Your task to perform on an android device: View the shopping cart on ebay. Search for razer deathadder on ebay, select the first entry, and add it to the cart. Image 0: 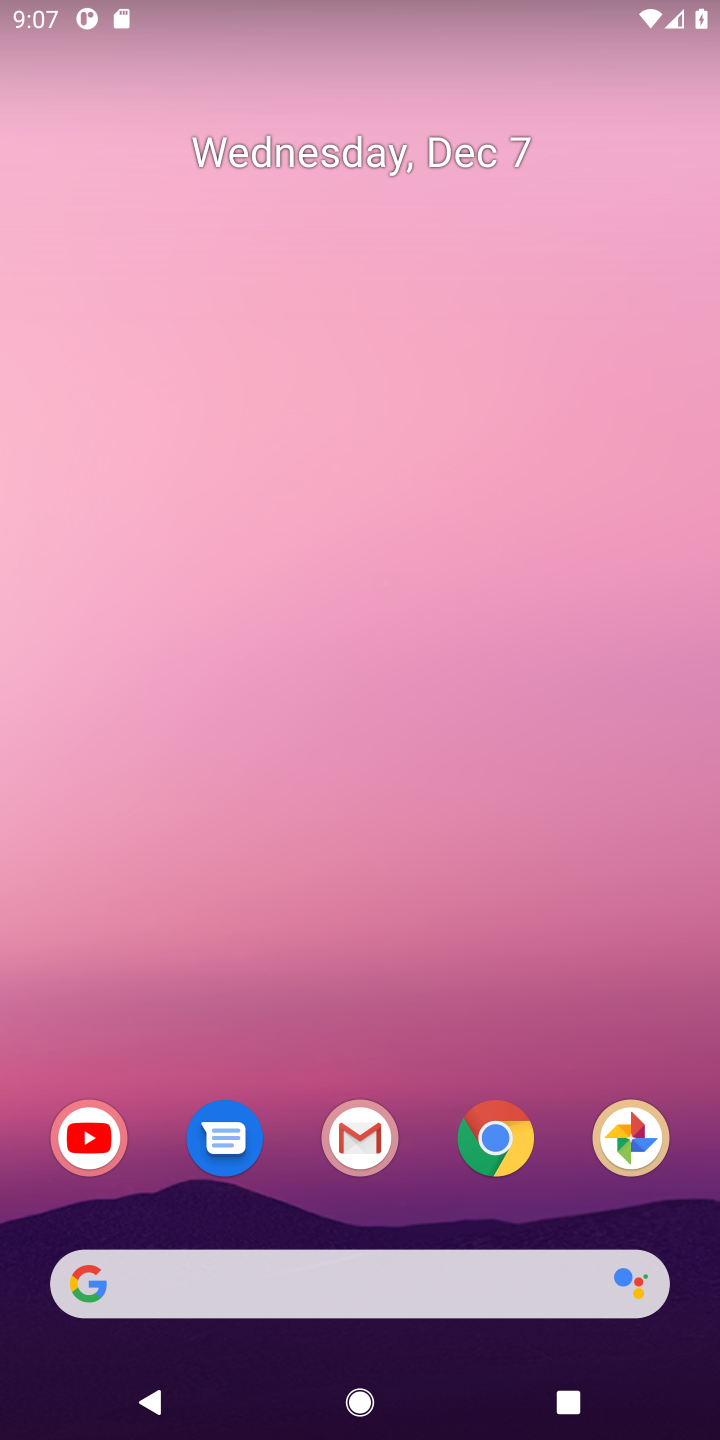
Step 0: press home button
Your task to perform on an android device: View the shopping cart on ebay. Search for razer deathadder on ebay, select the first entry, and add it to the cart. Image 1: 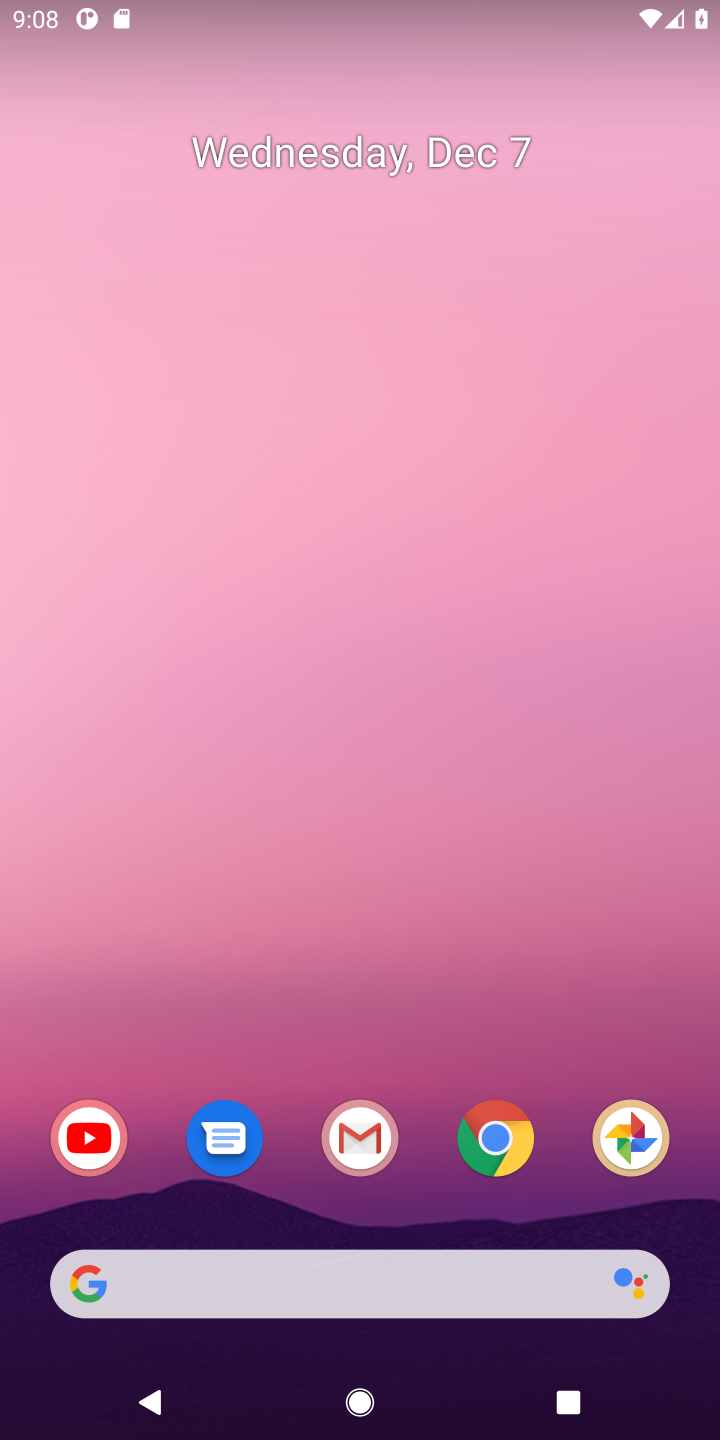
Step 1: click (122, 1285)
Your task to perform on an android device: View the shopping cart on ebay. Search for razer deathadder on ebay, select the first entry, and add it to the cart. Image 2: 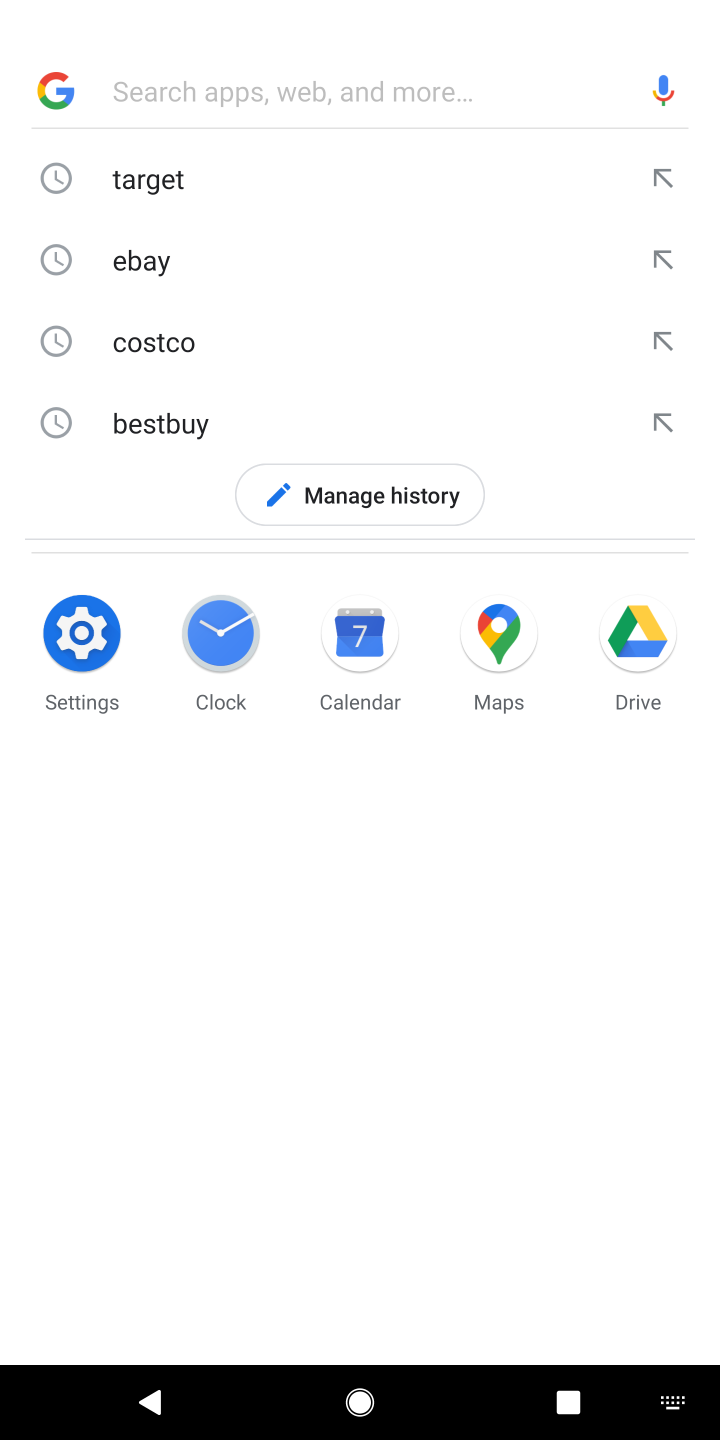
Step 2: press enter
Your task to perform on an android device: View the shopping cart on ebay. Search for razer deathadder on ebay, select the first entry, and add it to the cart. Image 3: 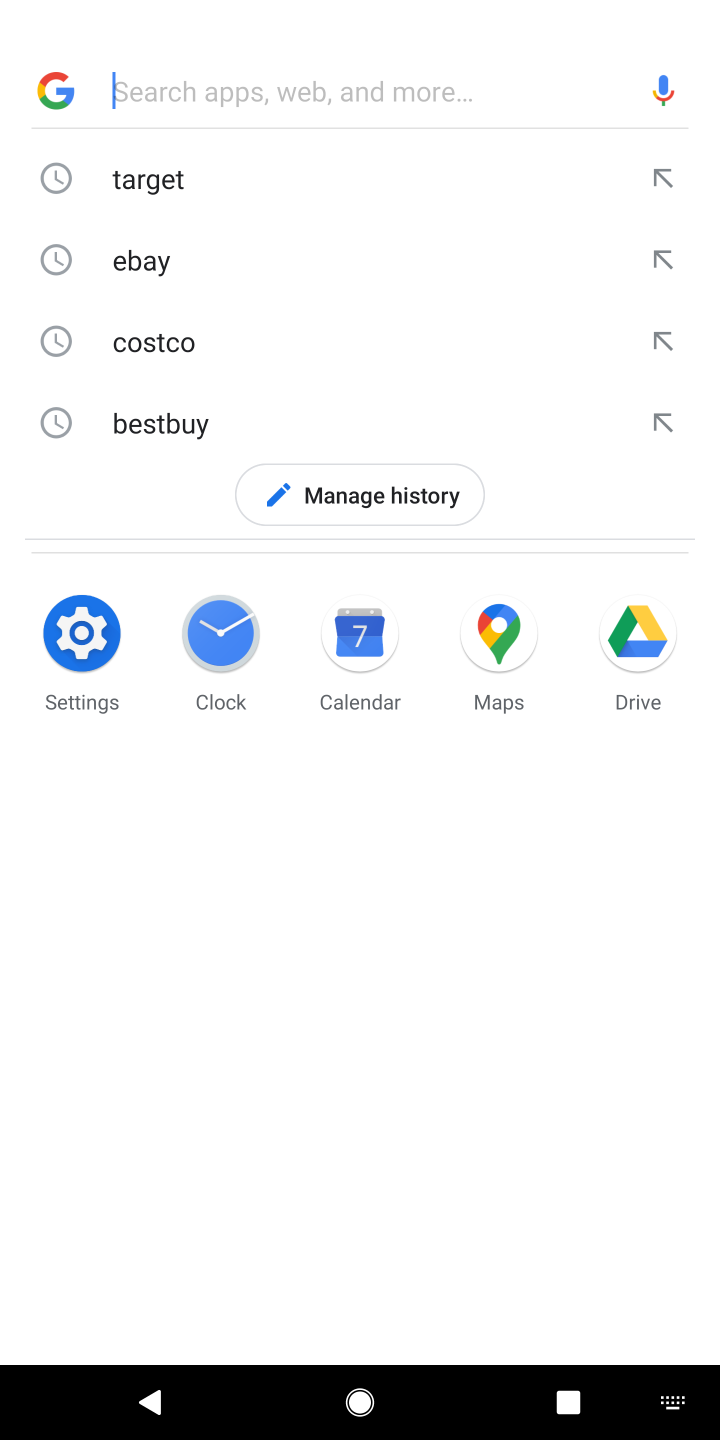
Step 3: type "ebay"
Your task to perform on an android device: View the shopping cart on ebay. Search for razer deathadder on ebay, select the first entry, and add it to the cart. Image 4: 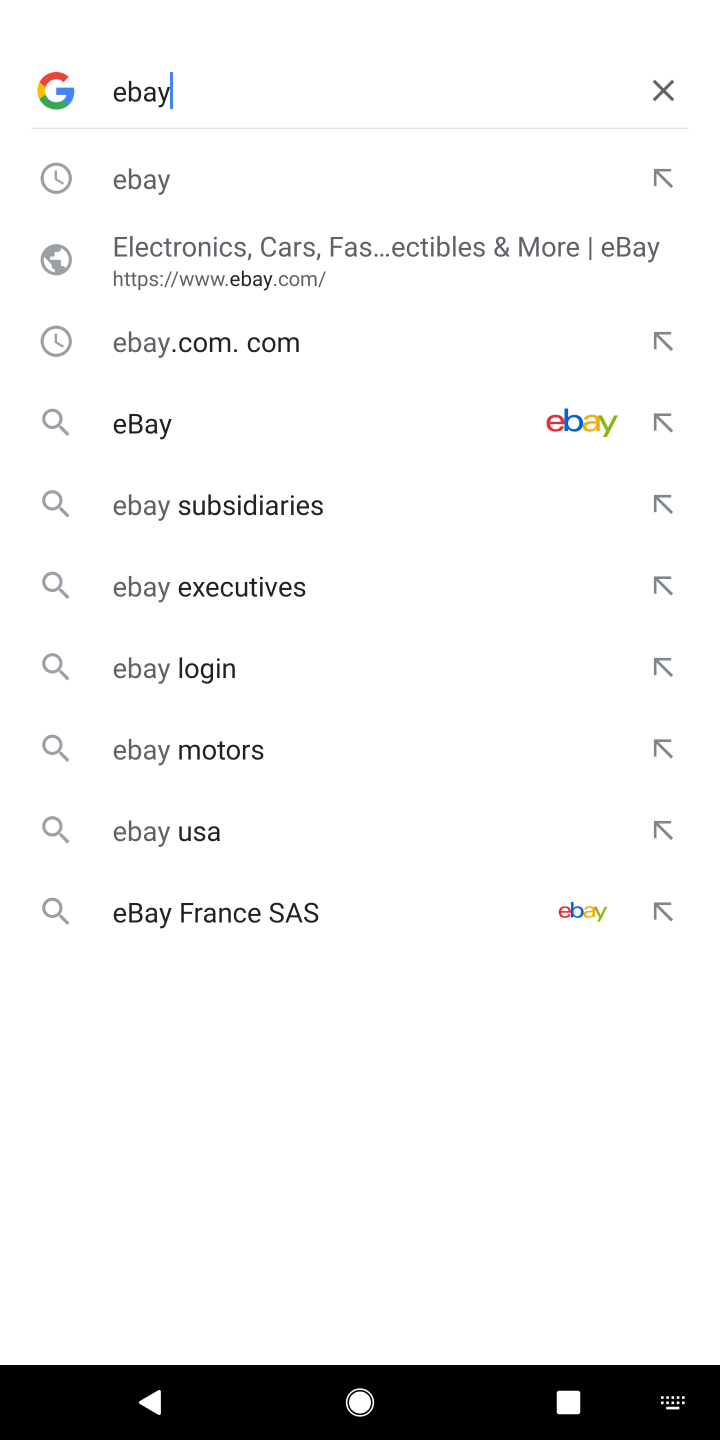
Step 4: press enter
Your task to perform on an android device: View the shopping cart on ebay. Search for razer deathadder on ebay, select the first entry, and add it to the cart. Image 5: 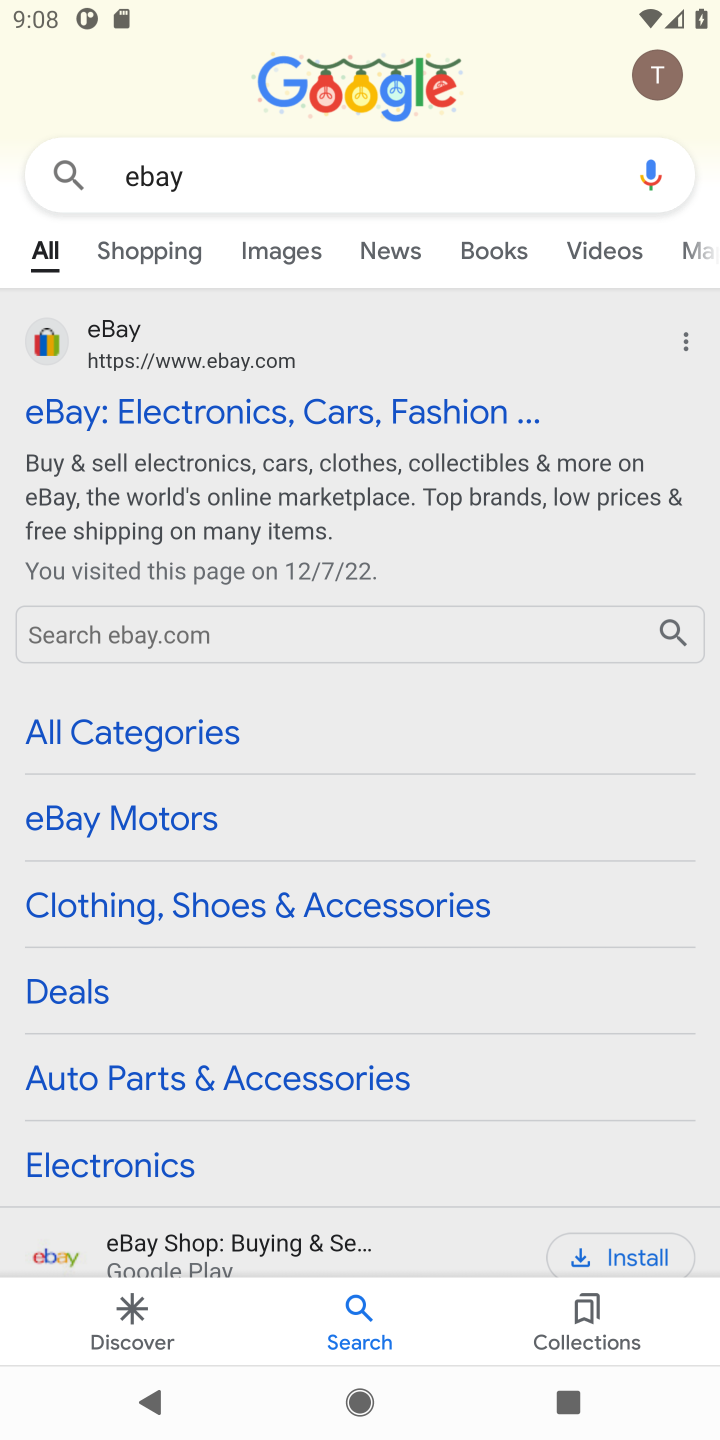
Step 5: click (334, 424)
Your task to perform on an android device: View the shopping cart on ebay. Search for razer deathadder on ebay, select the first entry, and add it to the cart. Image 6: 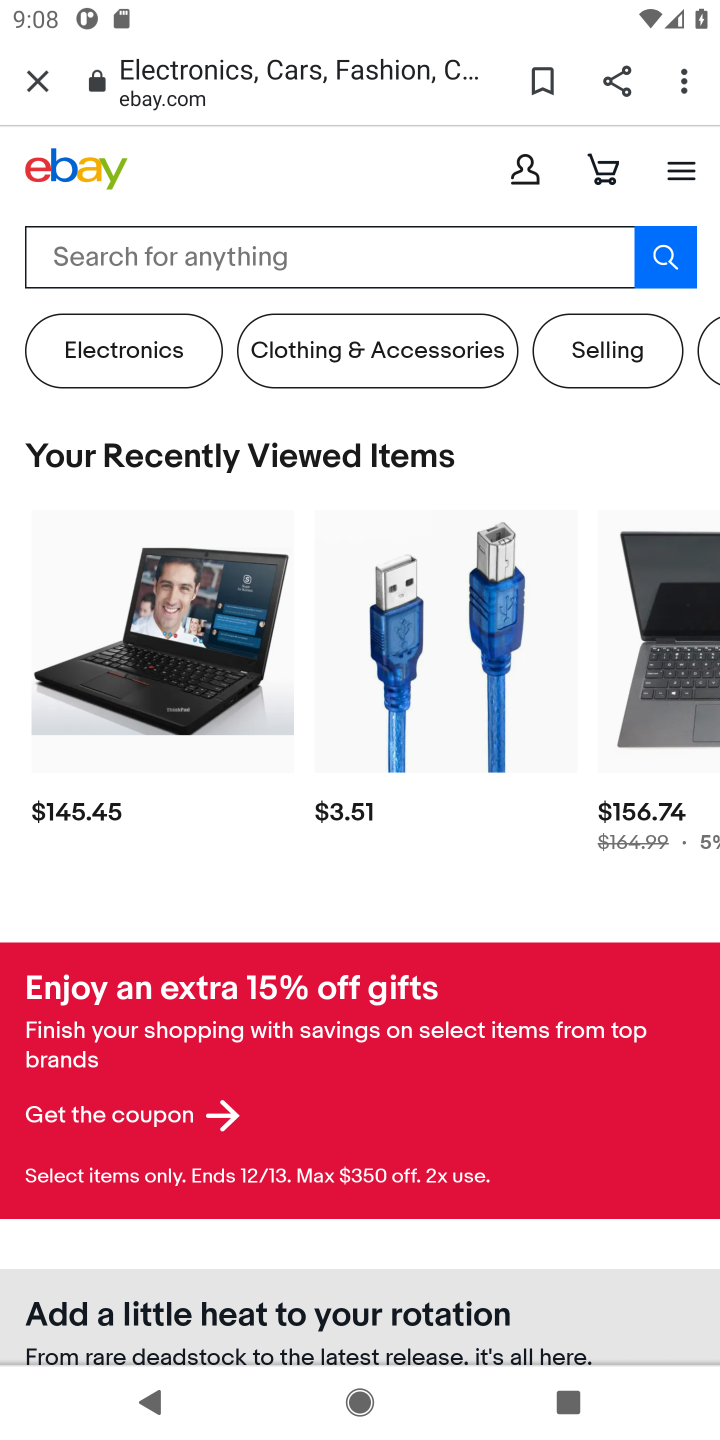
Step 6: click (601, 163)
Your task to perform on an android device: View the shopping cart on ebay. Search for razer deathadder on ebay, select the first entry, and add it to the cart. Image 7: 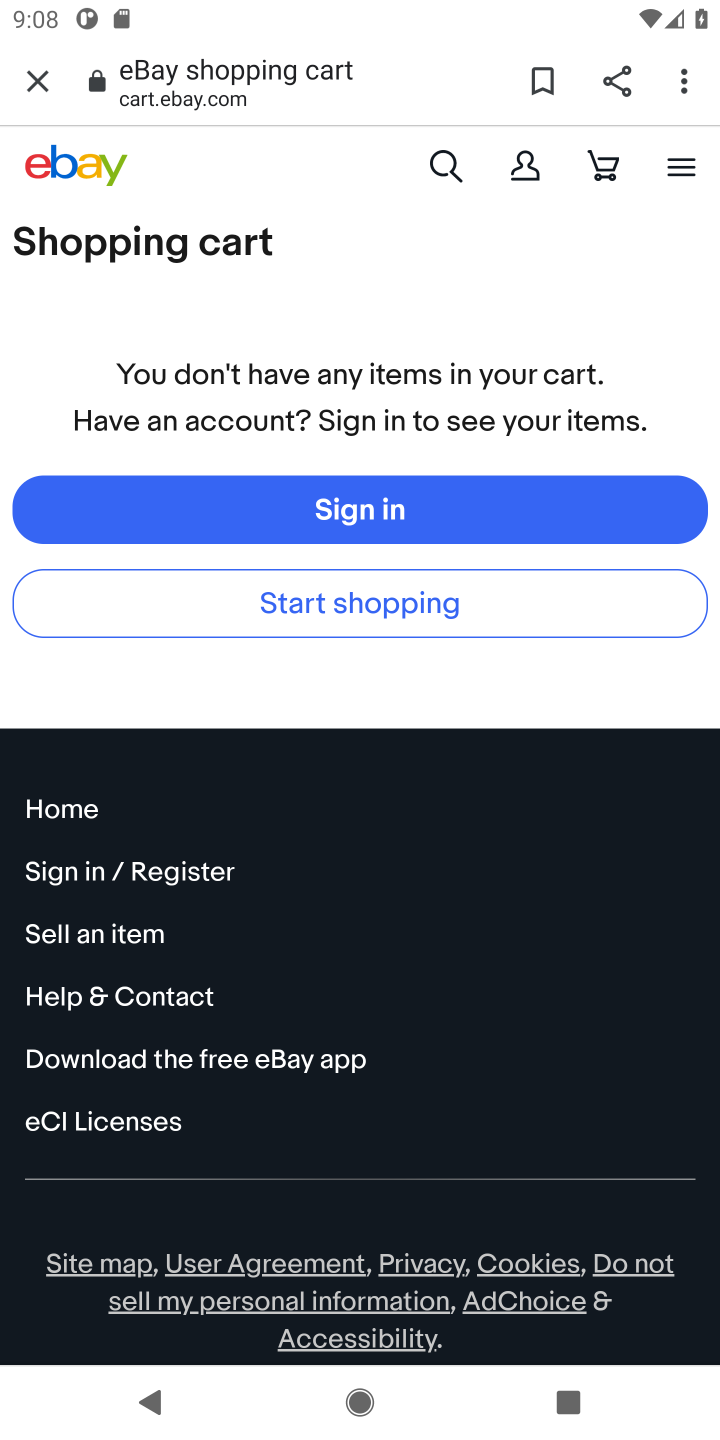
Step 7: click (435, 157)
Your task to perform on an android device: View the shopping cart on ebay. Search for razer deathadder on ebay, select the first entry, and add it to the cart. Image 8: 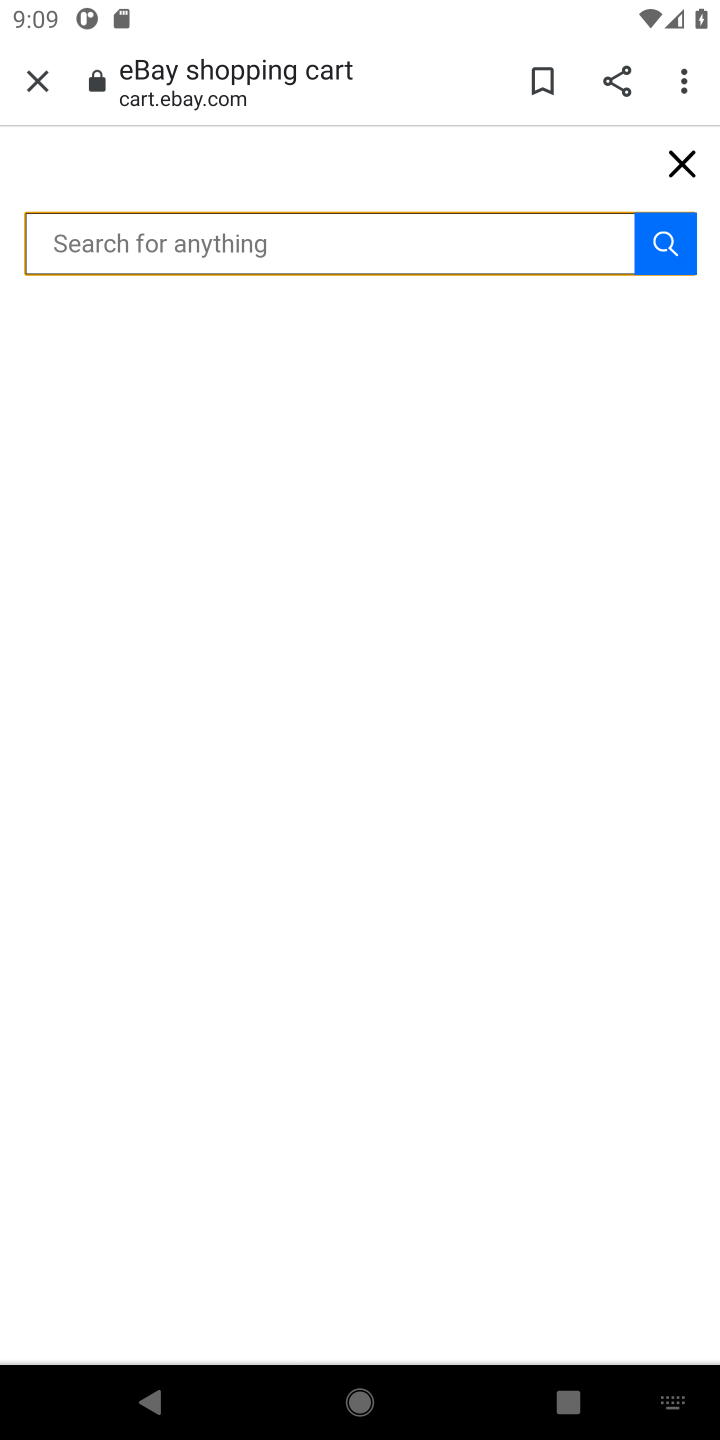
Step 8: type "razer deathadder"
Your task to perform on an android device: View the shopping cart on ebay. Search for razer deathadder on ebay, select the first entry, and add it to the cart. Image 9: 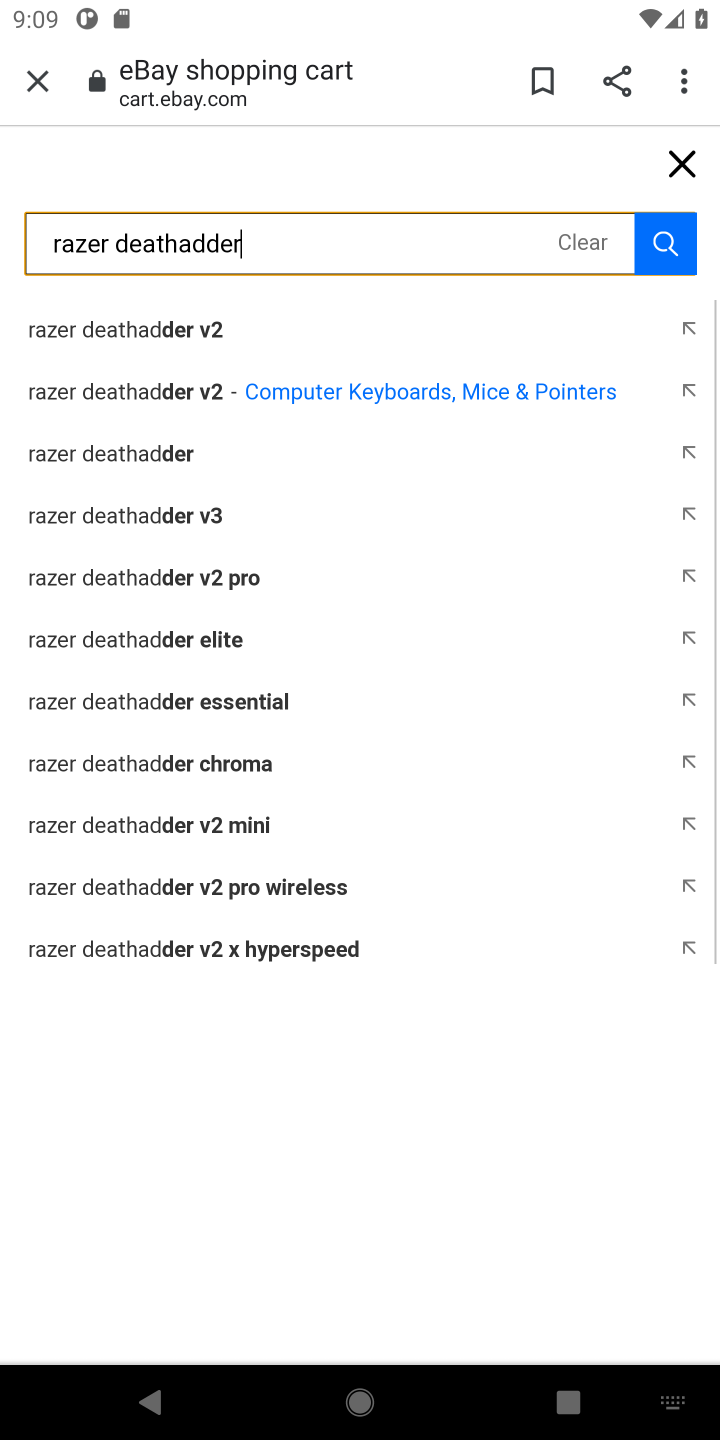
Step 9: press enter
Your task to perform on an android device: View the shopping cart on ebay. Search for razer deathadder on ebay, select the first entry, and add it to the cart. Image 10: 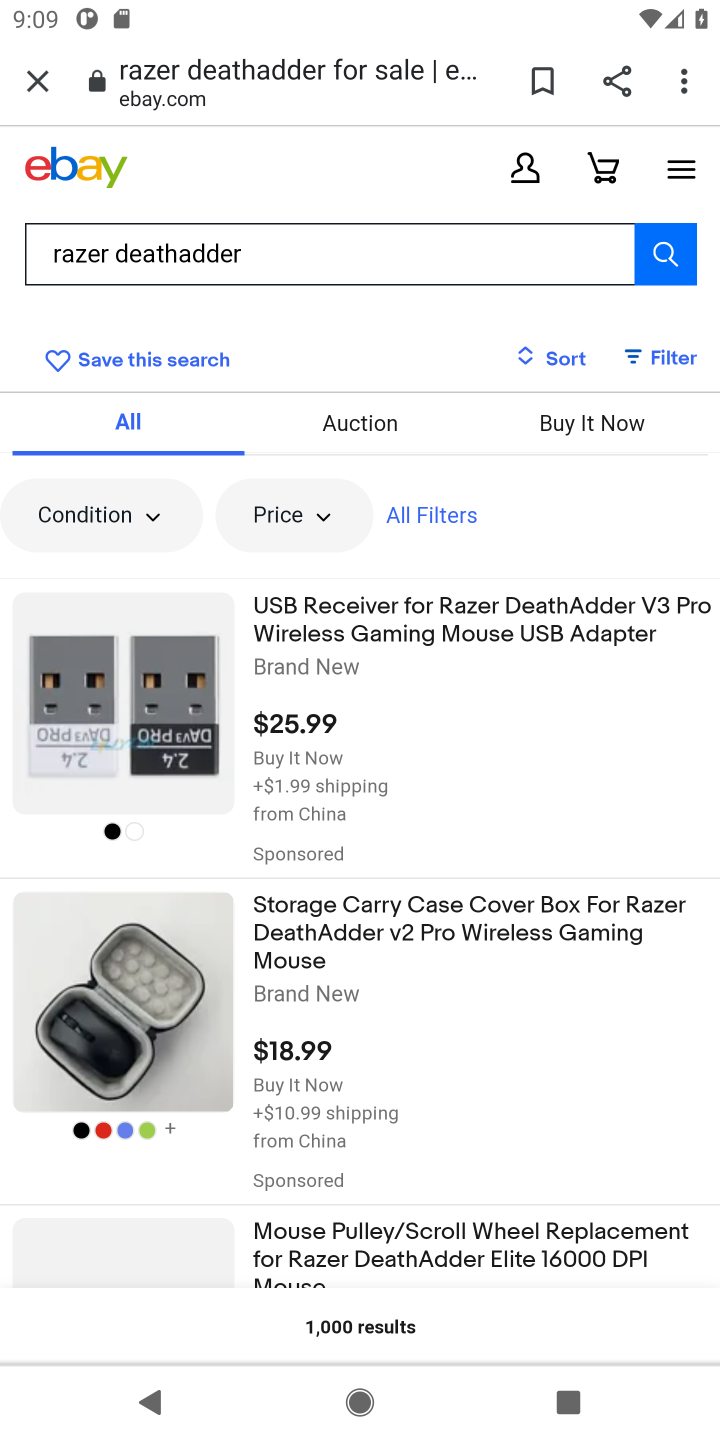
Step 10: click (419, 633)
Your task to perform on an android device: View the shopping cart on ebay. Search for razer deathadder on ebay, select the first entry, and add it to the cart. Image 11: 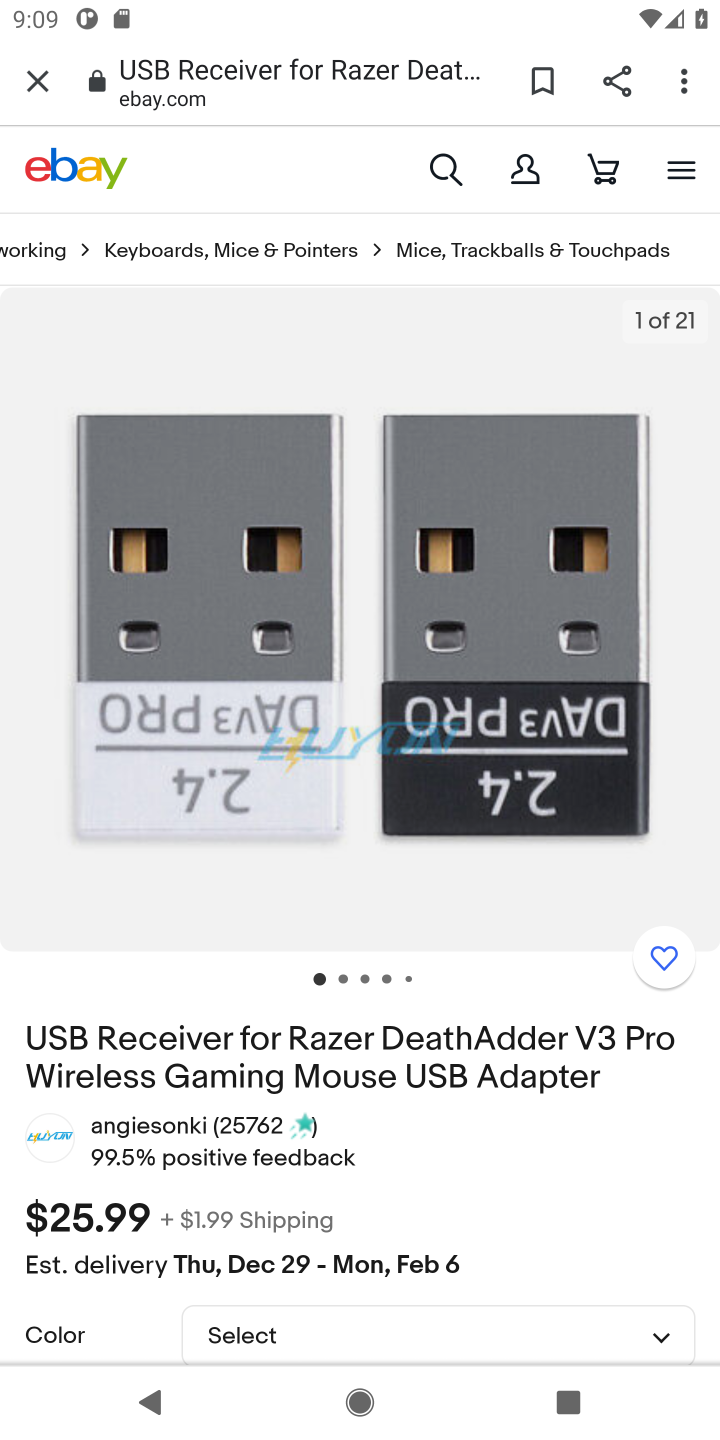
Step 11: drag from (472, 1111) to (489, 555)
Your task to perform on an android device: View the shopping cart on ebay. Search for razer deathadder on ebay, select the first entry, and add it to the cart. Image 12: 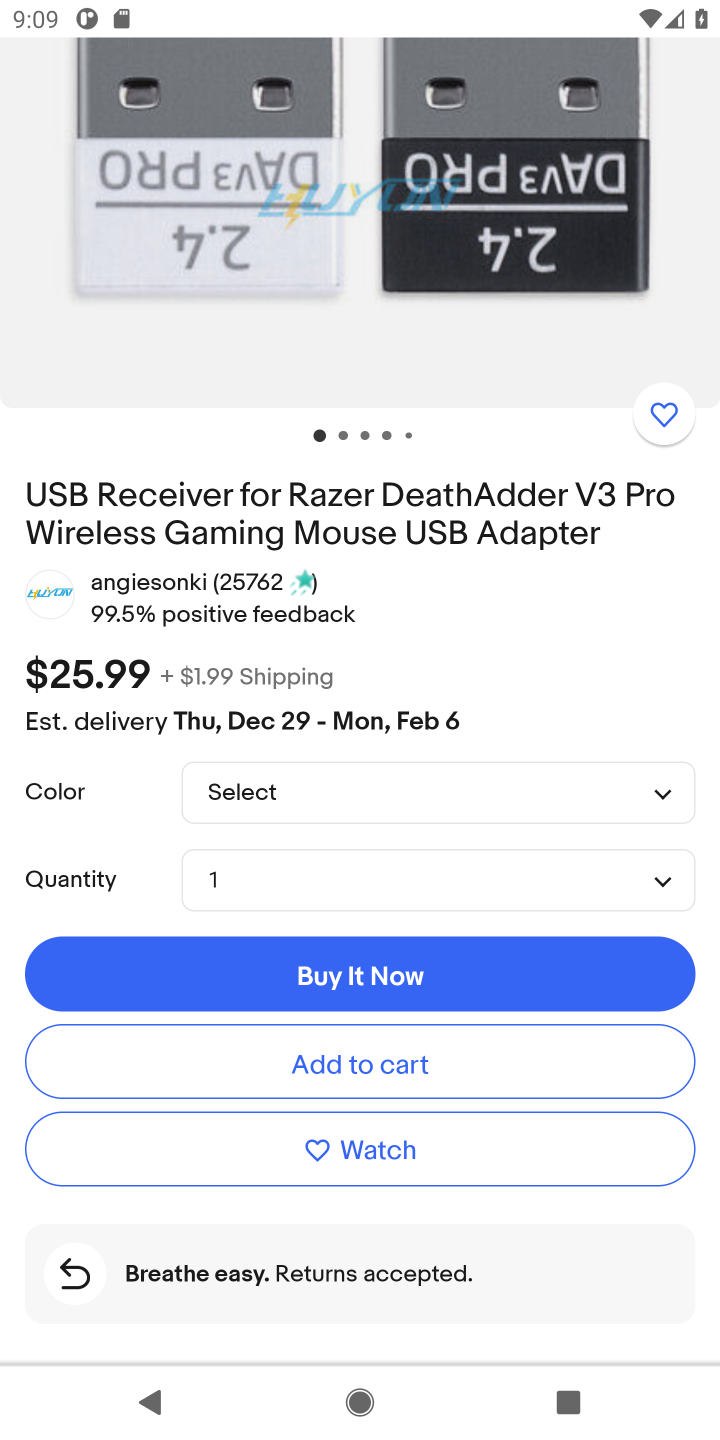
Step 12: click (376, 1061)
Your task to perform on an android device: View the shopping cart on ebay. Search for razer deathadder on ebay, select the first entry, and add it to the cart. Image 13: 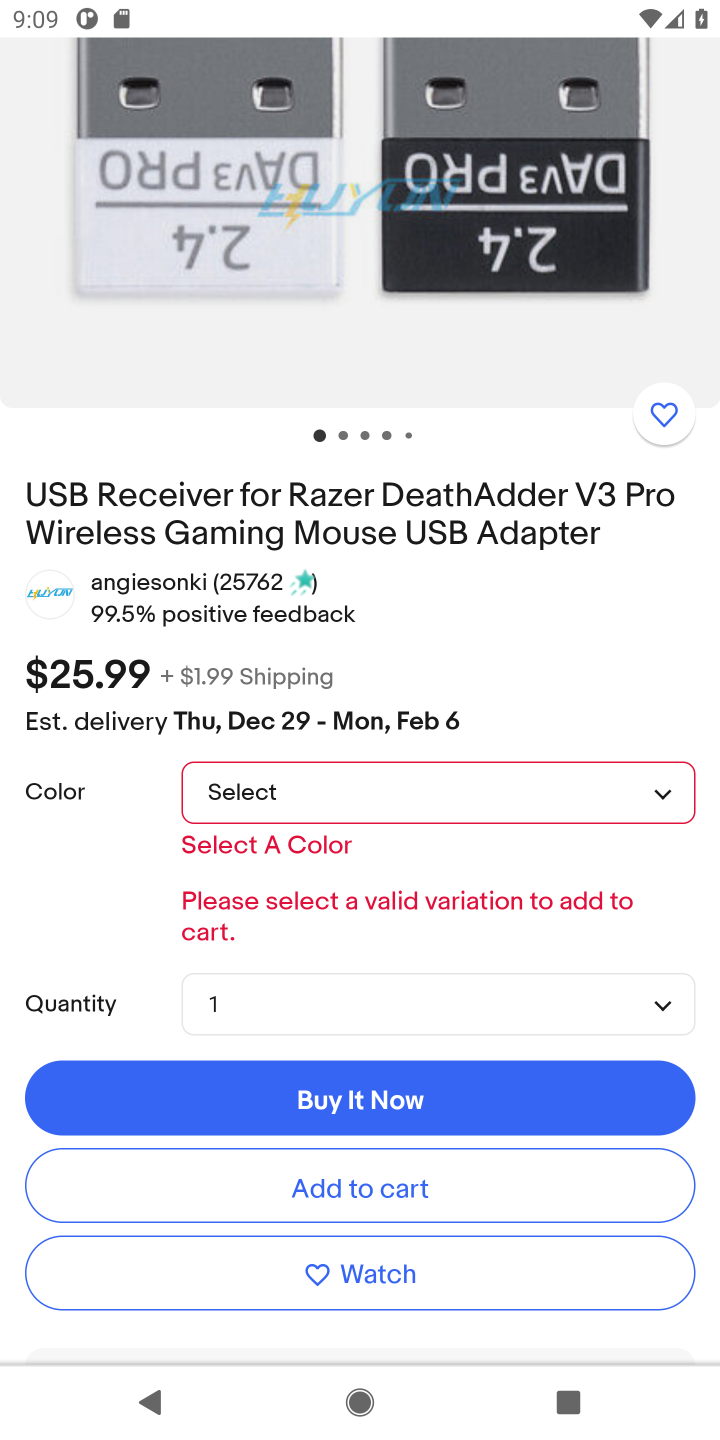
Step 13: click (651, 793)
Your task to perform on an android device: View the shopping cart on ebay. Search for razer deathadder on ebay, select the first entry, and add it to the cart. Image 14: 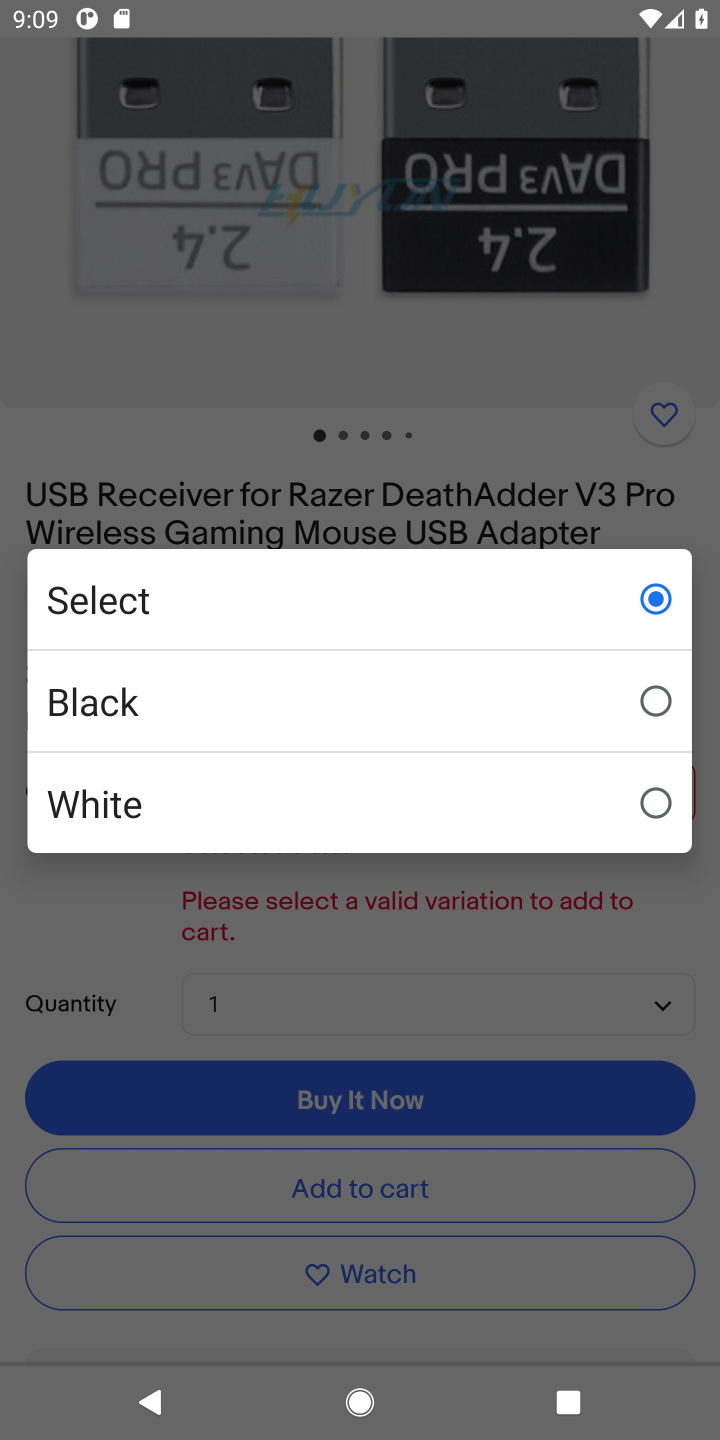
Step 14: click (651, 687)
Your task to perform on an android device: View the shopping cart on ebay. Search for razer deathadder on ebay, select the first entry, and add it to the cart. Image 15: 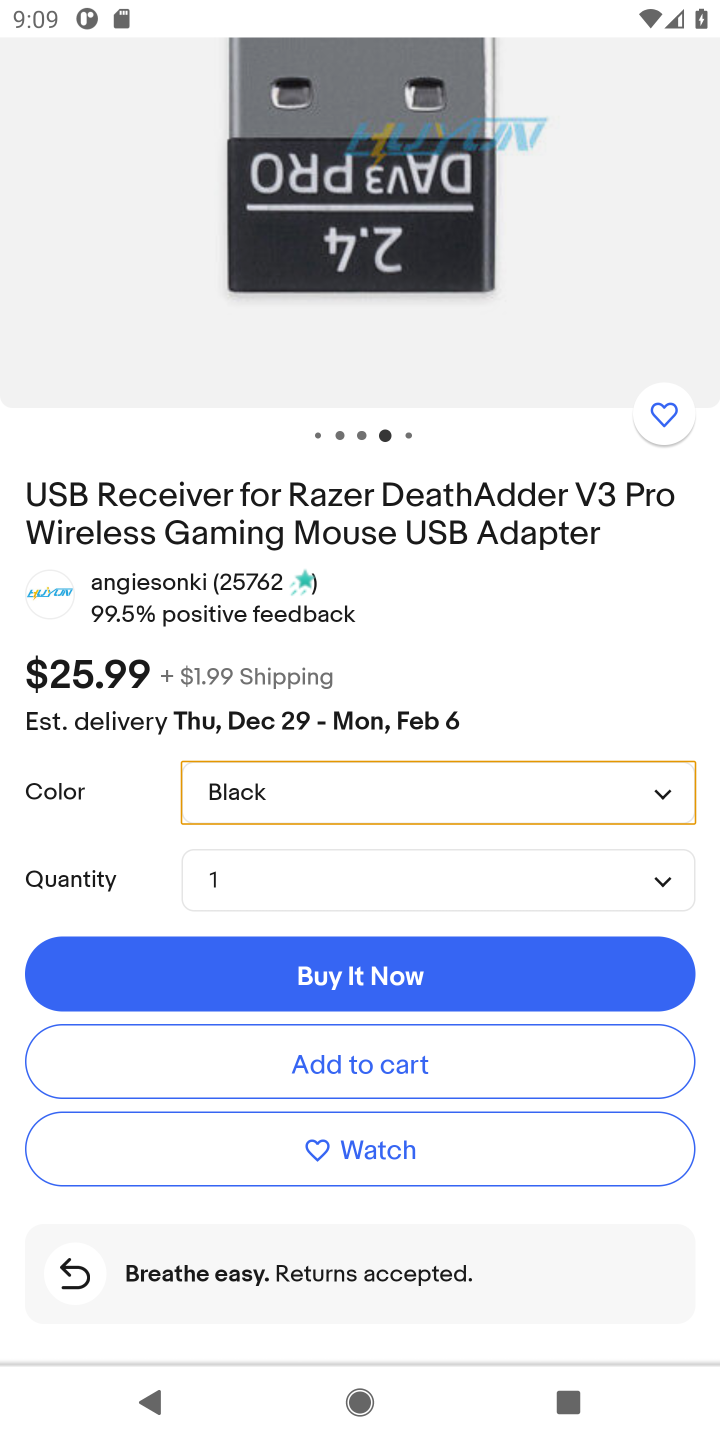
Step 15: click (341, 1058)
Your task to perform on an android device: View the shopping cart on ebay. Search for razer deathadder on ebay, select the first entry, and add it to the cart. Image 16: 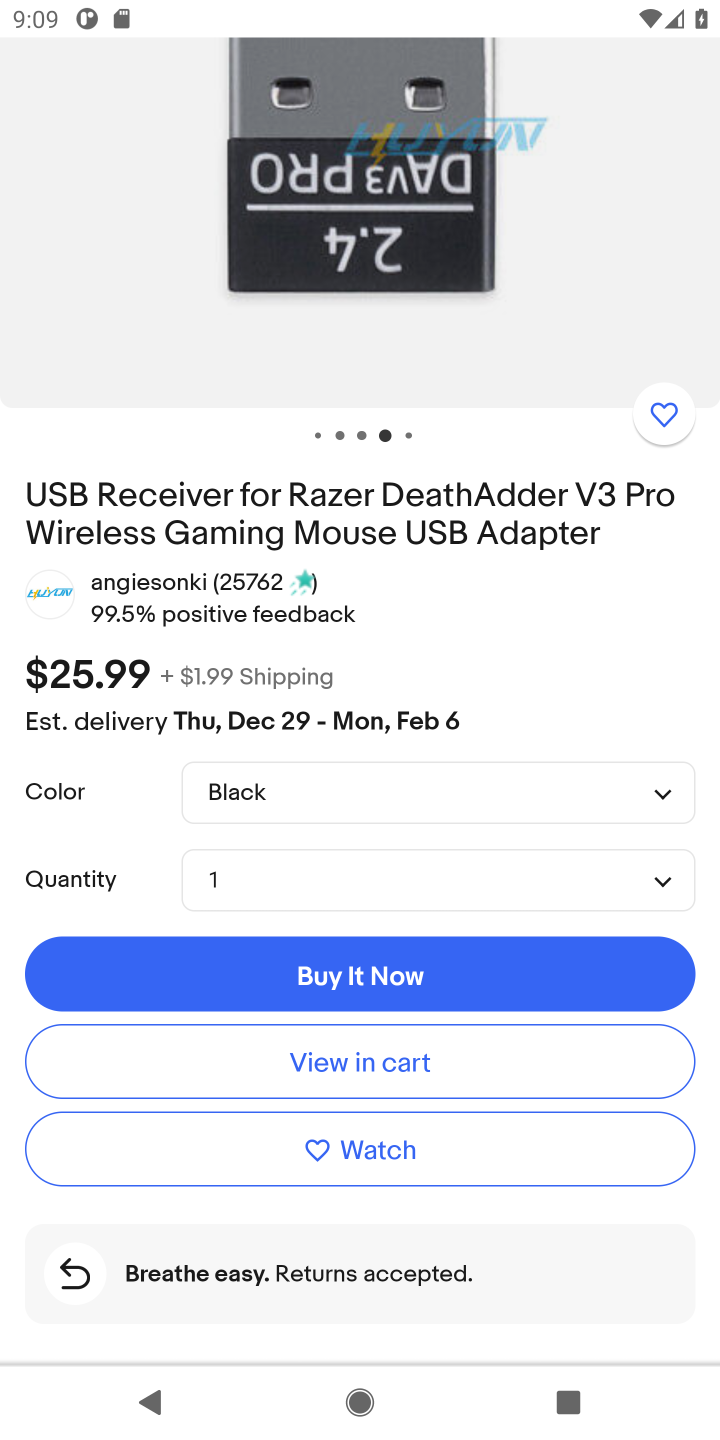
Step 16: task complete